Your task to perform on an android device: Open Google Maps Image 0: 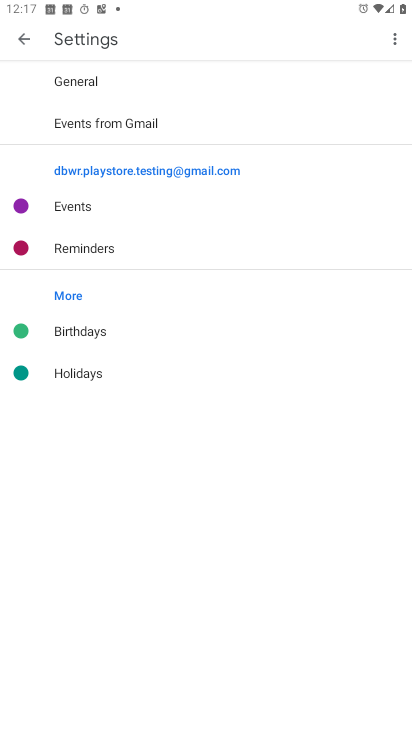
Step 0: press home button
Your task to perform on an android device: Open Google Maps Image 1: 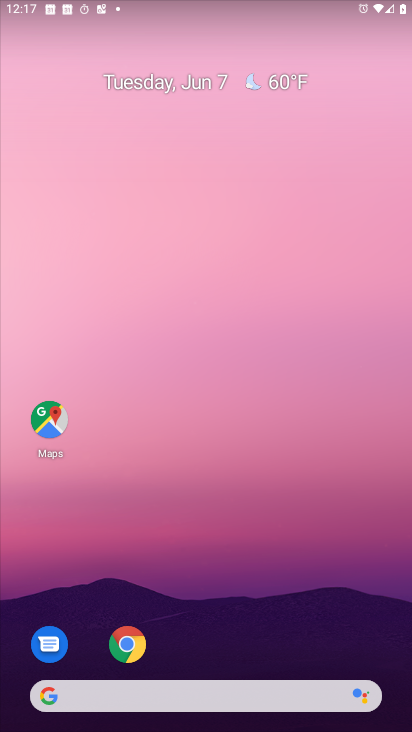
Step 1: click (60, 431)
Your task to perform on an android device: Open Google Maps Image 2: 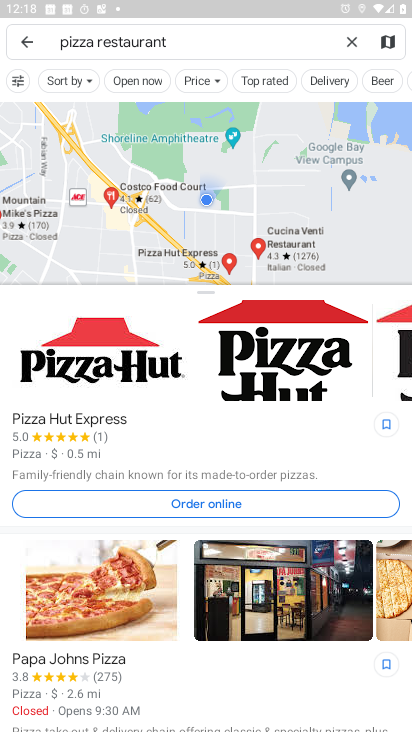
Step 2: task complete